Your task to perform on an android device: Open Youtube and go to the subscriptions tab Image 0: 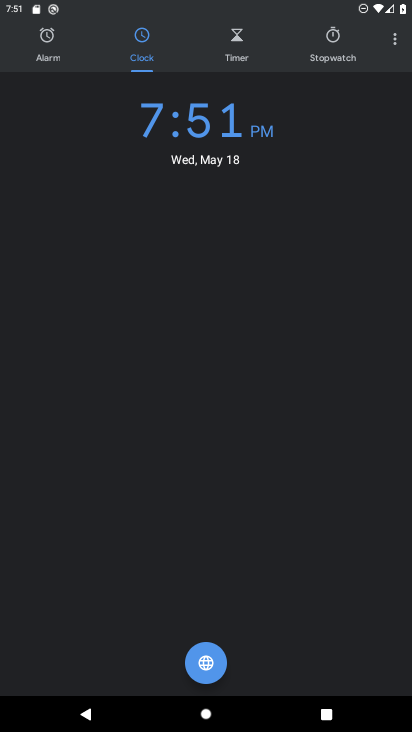
Step 0: press home button
Your task to perform on an android device: Open Youtube and go to the subscriptions tab Image 1: 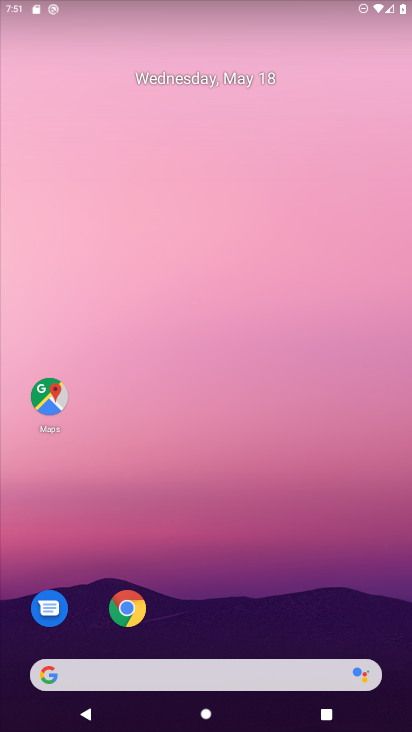
Step 1: drag from (264, 667) to (258, 44)
Your task to perform on an android device: Open Youtube and go to the subscriptions tab Image 2: 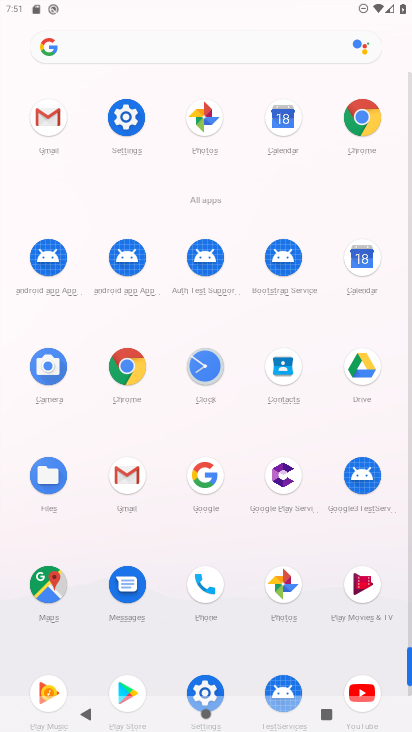
Step 2: drag from (228, 540) to (225, 222)
Your task to perform on an android device: Open Youtube and go to the subscriptions tab Image 3: 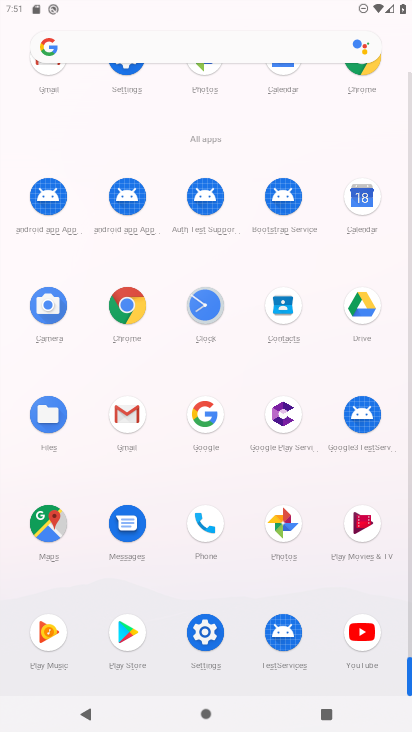
Step 3: click (364, 639)
Your task to perform on an android device: Open Youtube and go to the subscriptions tab Image 4: 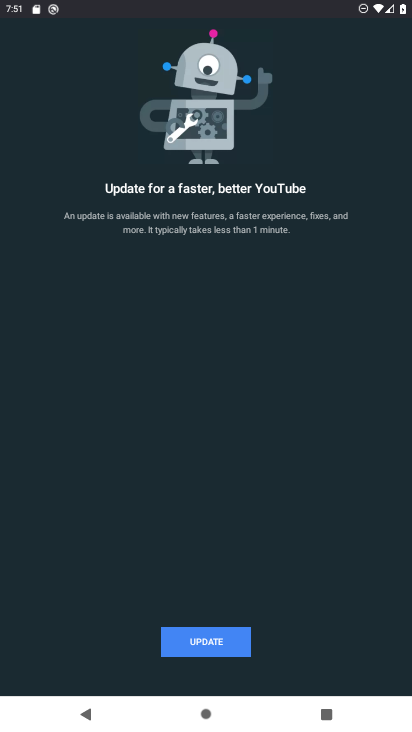
Step 4: click (218, 656)
Your task to perform on an android device: Open Youtube and go to the subscriptions tab Image 5: 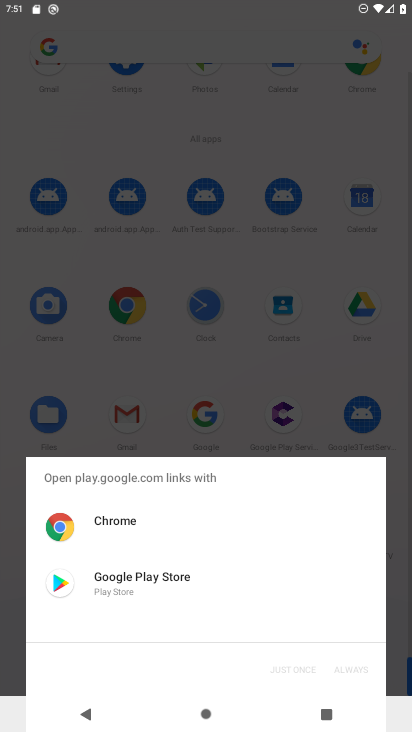
Step 5: click (120, 586)
Your task to perform on an android device: Open Youtube and go to the subscriptions tab Image 6: 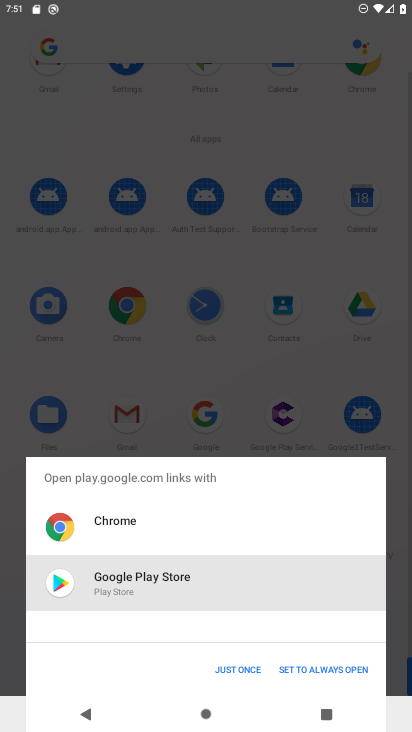
Step 6: click (228, 674)
Your task to perform on an android device: Open Youtube and go to the subscriptions tab Image 7: 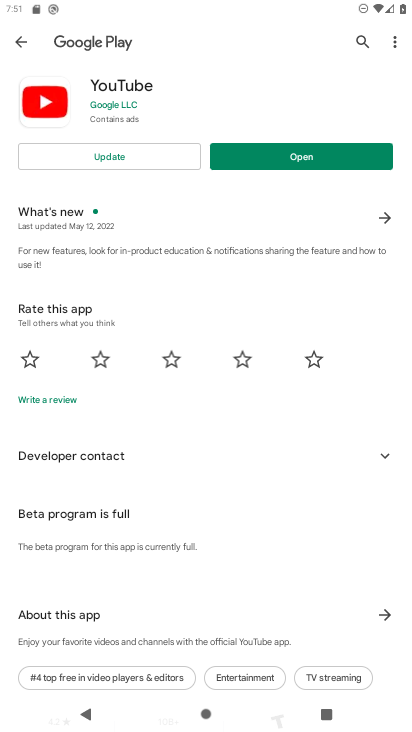
Step 7: click (164, 159)
Your task to perform on an android device: Open Youtube and go to the subscriptions tab Image 8: 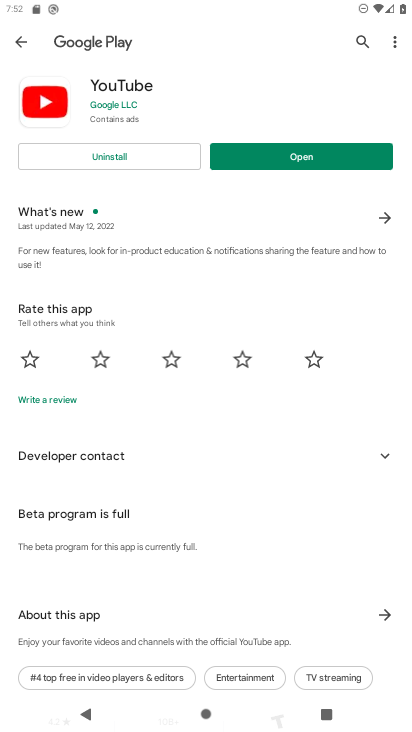
Step 8: click (261, 155)
Your task to perform on an android device: Open Youtube and go to the subscriptions tab Image 9: 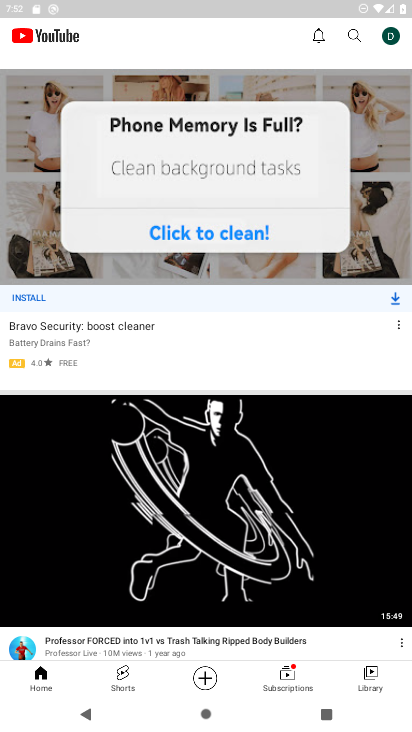
Step 9: click (302, 671)
Your task to perform on an android device: Open Youtube and go to the subscriptions tab Image 10: 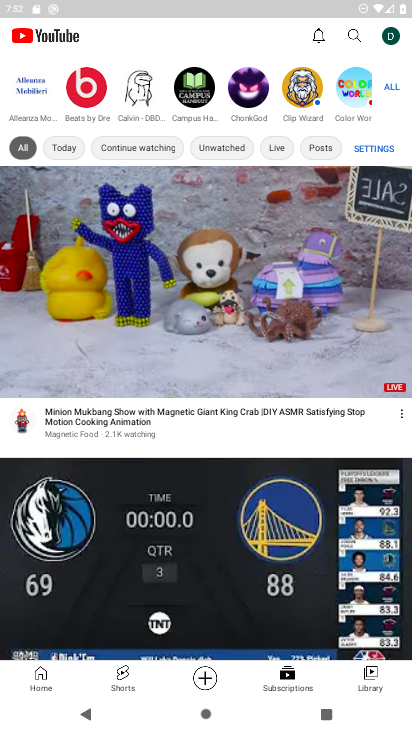
Step 10: task complete